Your task to perform on an android device: Open Google Chrome and open the bookmarks view Image 0: 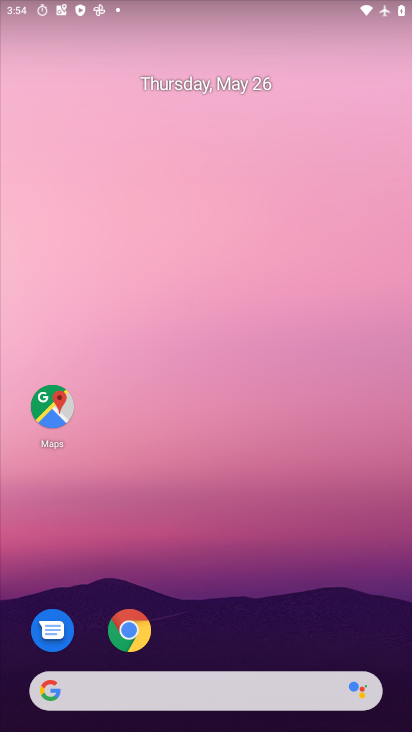
Step 0: click (138, 648)
Your task to perform on an android device: Open Google Chrome and open the bookmarks view Image 1: 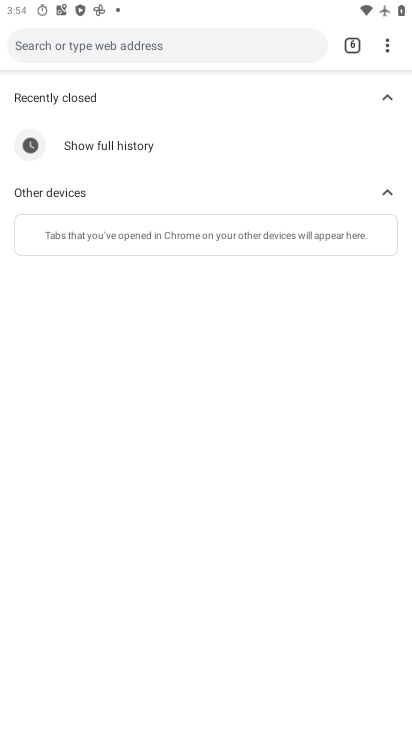
Step 1: click (386, 56)
Your task to perform on an android device: Open Google Chrome and open the bookmarks view Image 2: 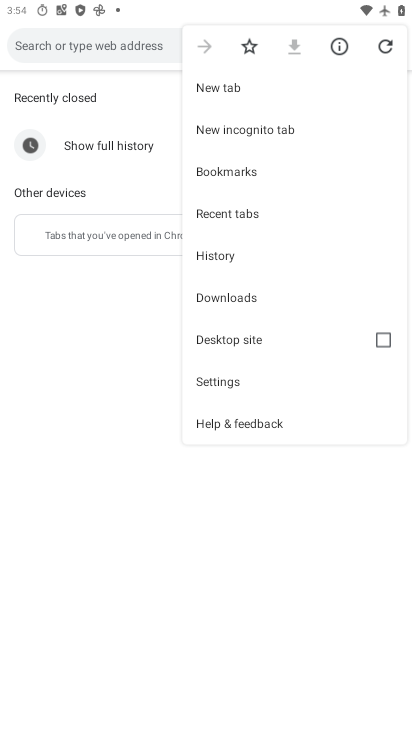
Step 2: click (229, 177)
Your task to perform on an android device: Open Google Chrome and open the bookmarks view Image 3: 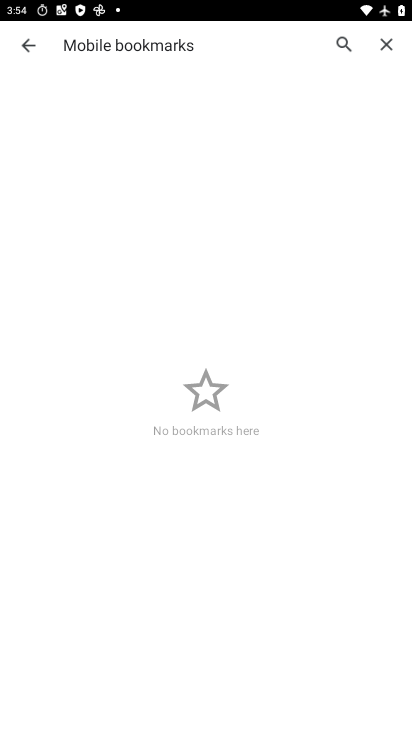
Step 3: task complete